Your task to perform on an android device: turn on improve location accuracy Image 0: 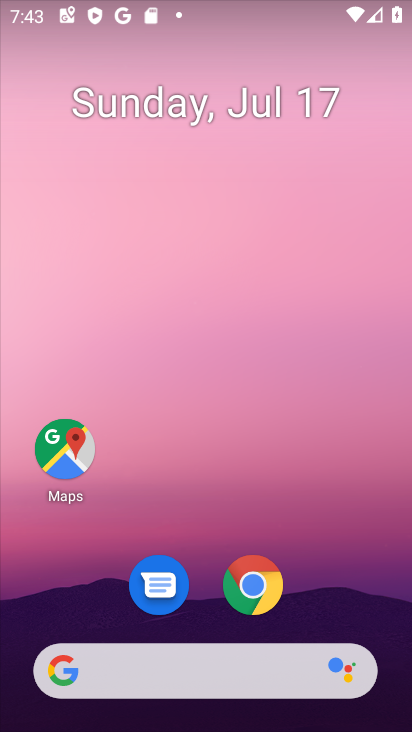
Step 0: drag from (345, 590) to (319, 55)
Your task to perform on an android device: turn on improve location accuracy Image 1: 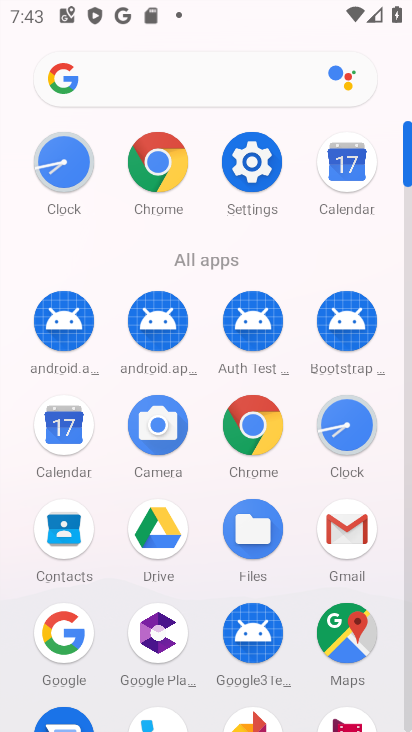
Step 1: click (251, 157)
Your task to perform on an android device: turn on improve location accuracy Image 2: 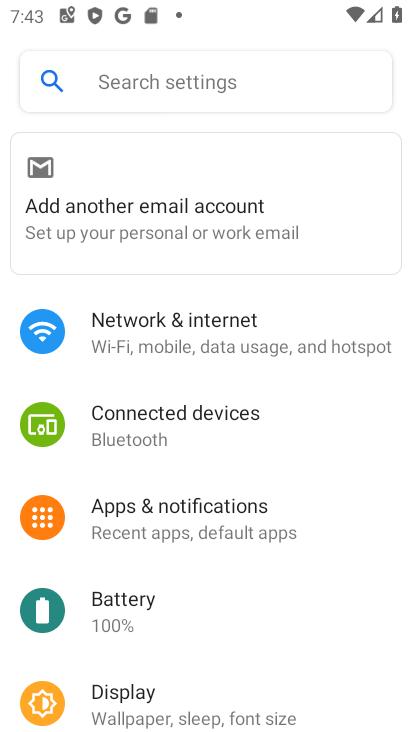
Step 2: drag from (209, 633) to (241, 107)
Your task to perform on an android device: turn on improve location accuracy Image 3: 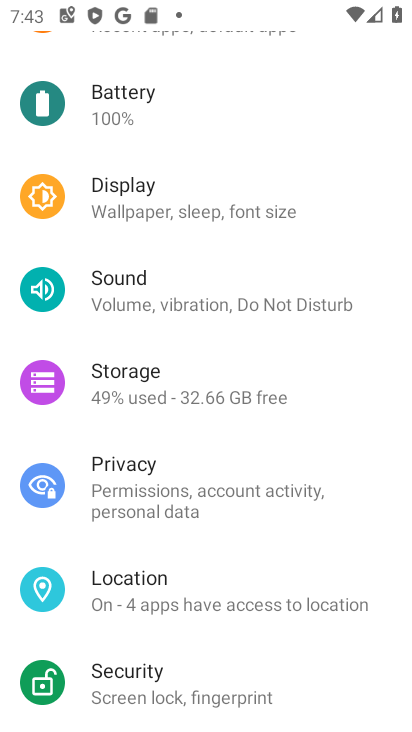
Step 3: click (177, 592)
Your task to perform on an android device: turn on improve location accuracy Image 4: 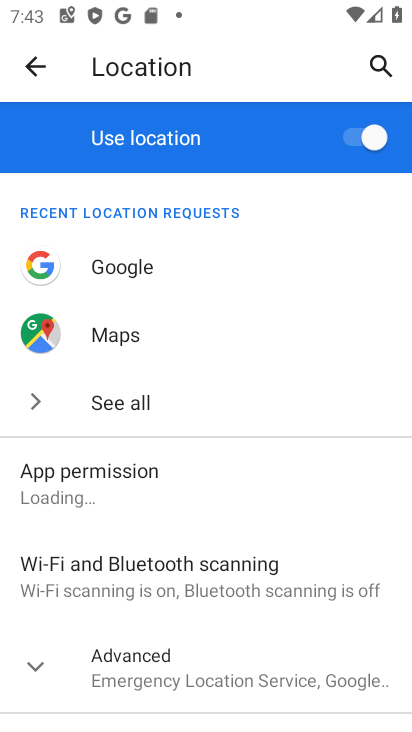
Step 4: click (35, 668)
Your task to perform on an android device: turn on improve location accuracy Image 5: 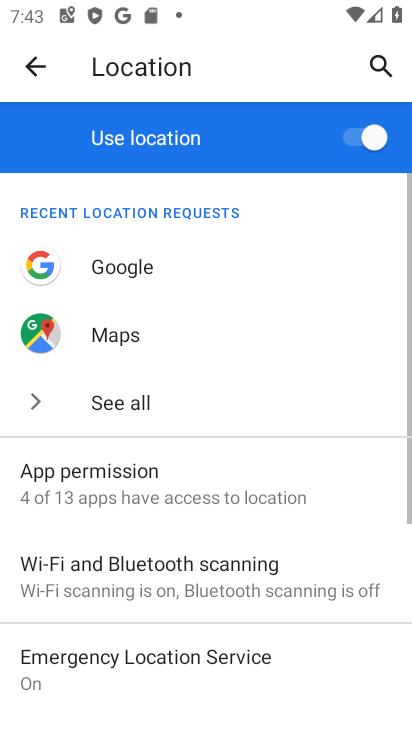
Step 5: drag from (278, 436) to (284, 201)
Your task to perform on an android device: turn on improve location accuracy Image 6: 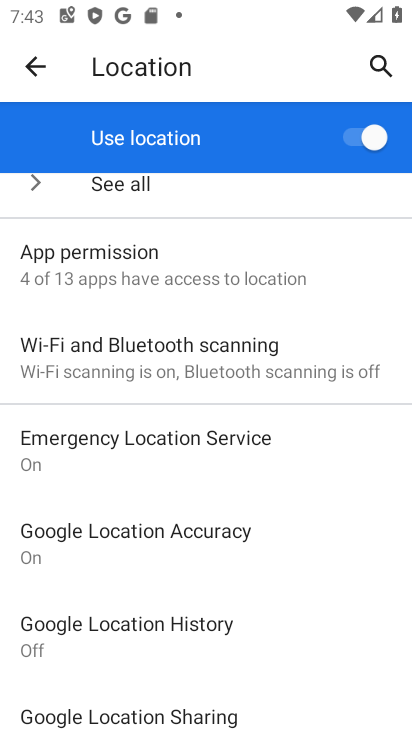
Step 6: click (209, 530)
Your task to perform on an android device: turn on improve location accuracy Image 7: 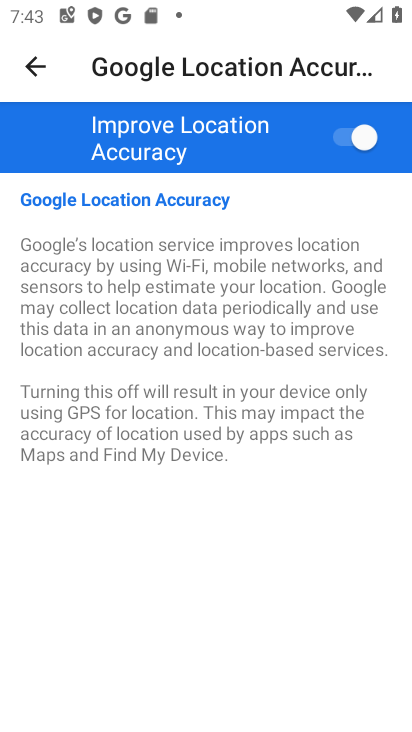
Step 7: task complete